Your task to perform on an android device: Set the phone to "Do not disturb". Image 0: 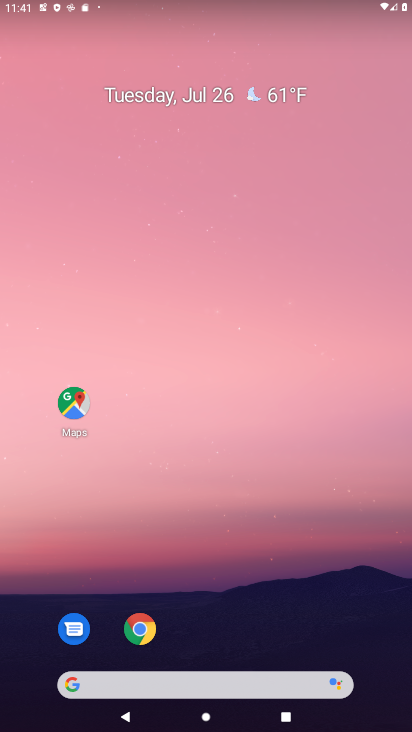
Step 0: press home button
Your task to perform on an android device: Set the phone to "Do not disturb". Image 1: 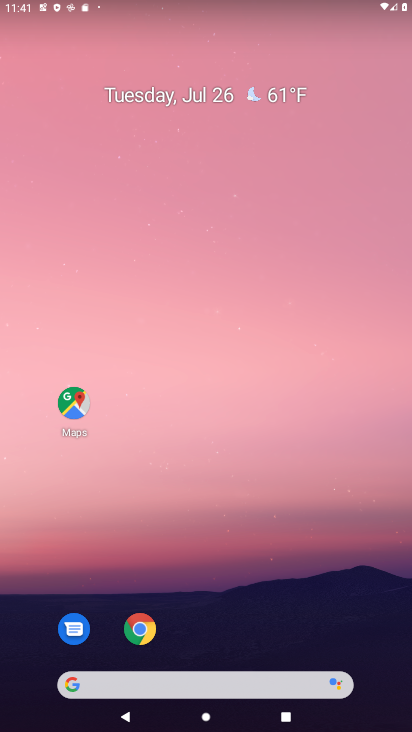
Step 1: drag from (256, 643) to (260, 198)
Your task to perform on an android device: Set the phone to "Do not disturb". Image 2: 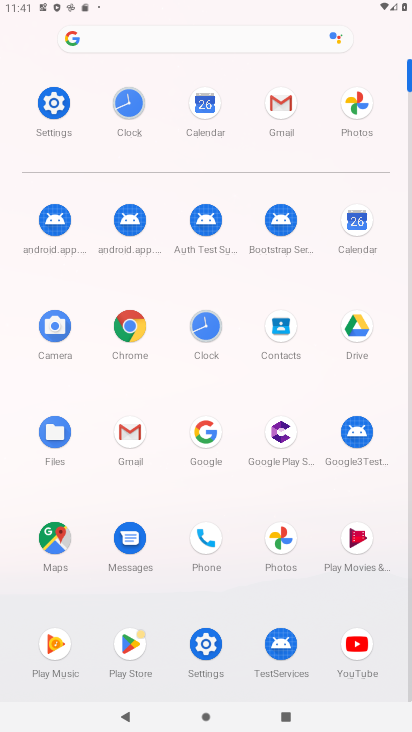
Step 2: click (50, 106)
Your task to perform on an android device: Set the phone to "Do not disturb". Image 3: 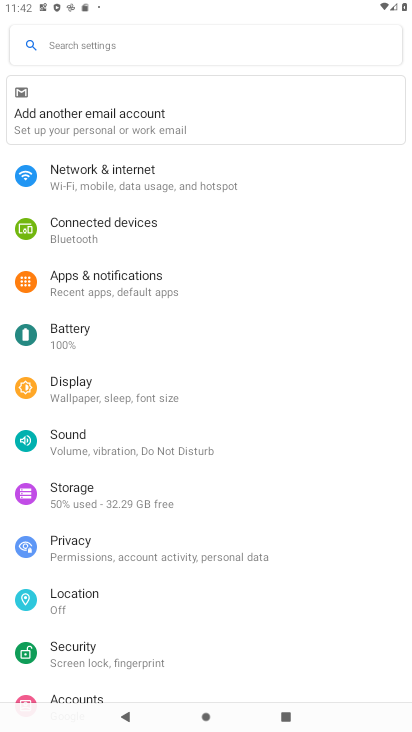
Step 3: click (186, 447)
Your task to perform on an android device: Set the phone to "Do not disturb". Image 4: 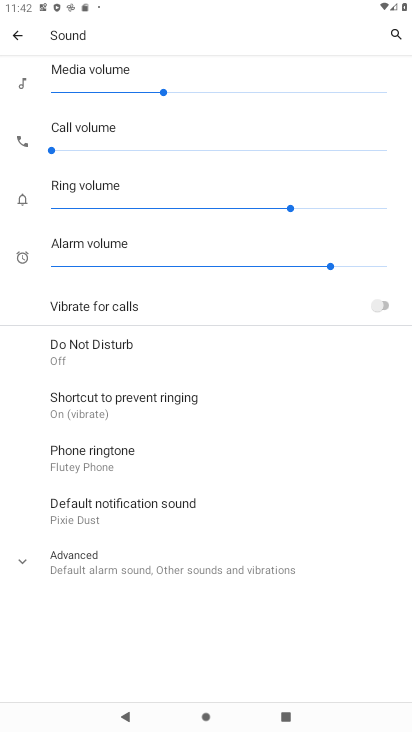
Step 4: click (178, 365)
Your task to perform on an android device: Set the phone to "Do not disturb". Image 5: 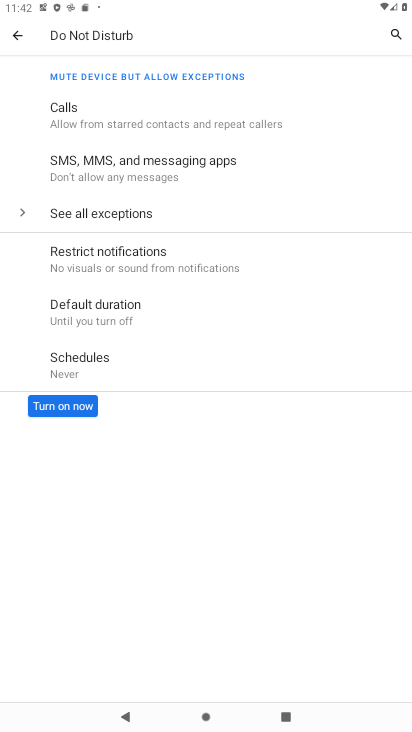
Step 5: task complete